Your task to perform on an android device: open a bookmark in the chrome app Image 0: 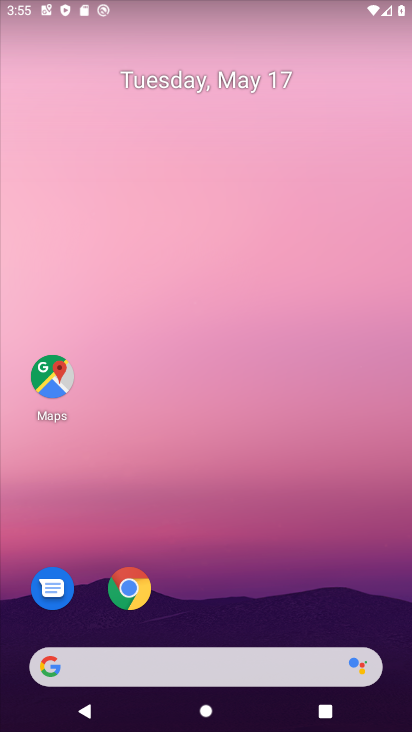
Step 0: click (129, 588)
Your task to perform on an android device: open a bookmark in the chrome app Image 1: 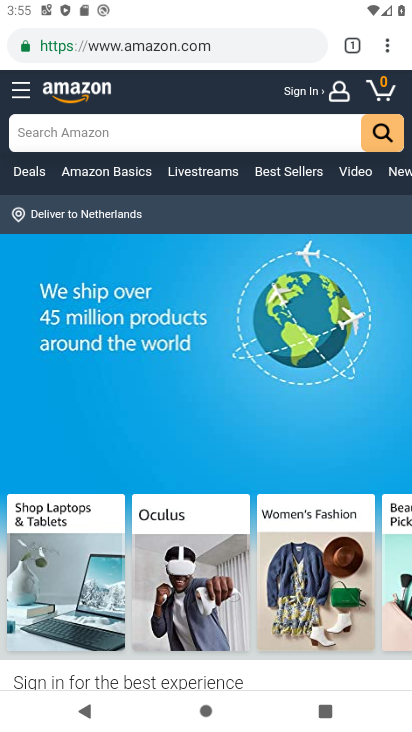
Step 1: click (388, 45)
Your task to perform on an android device: open a bookmark in the chrome app Image 2: 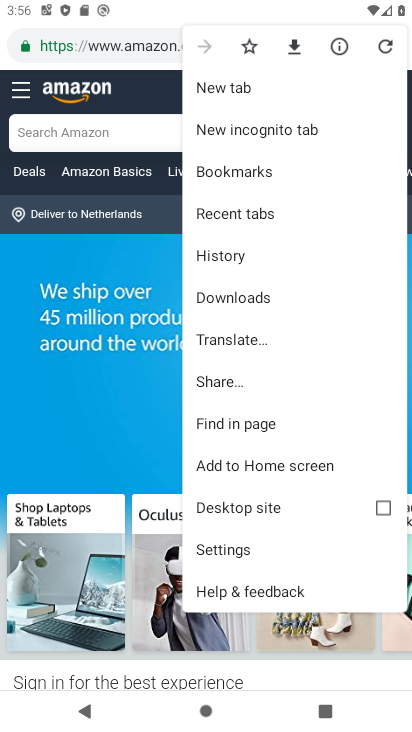
Step 2: click (260, 169)
Your task to perform on an android device: open a bookmark in the chrome app Image 3: 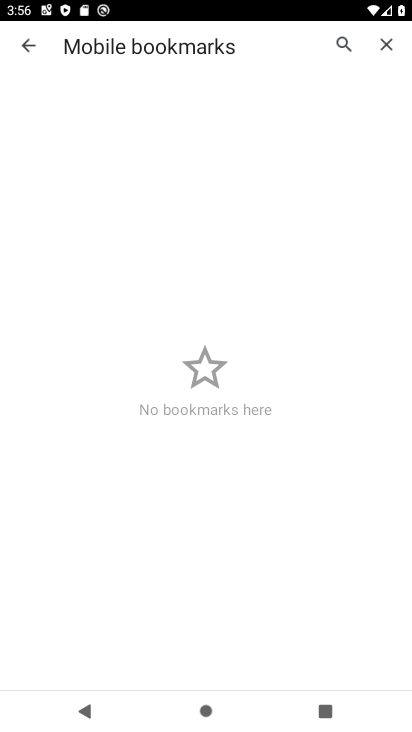
Step 3: task complete